Your task to perform on an android device: turn pop-ups on in chrome Image 0: 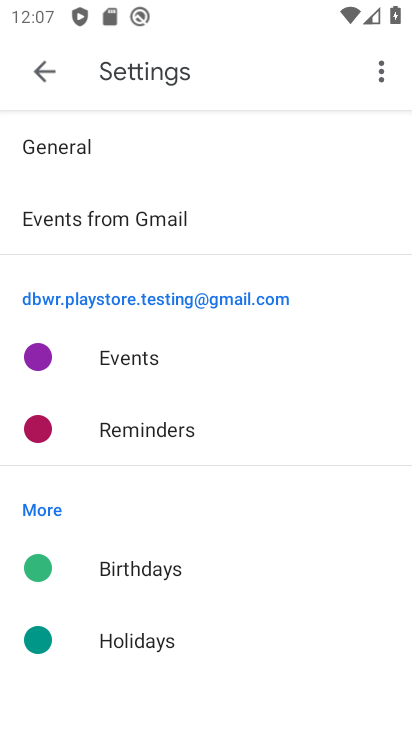
Step 0: press home button
Your task to perform on an android device: turn pop-ups on in chrome Image 1: 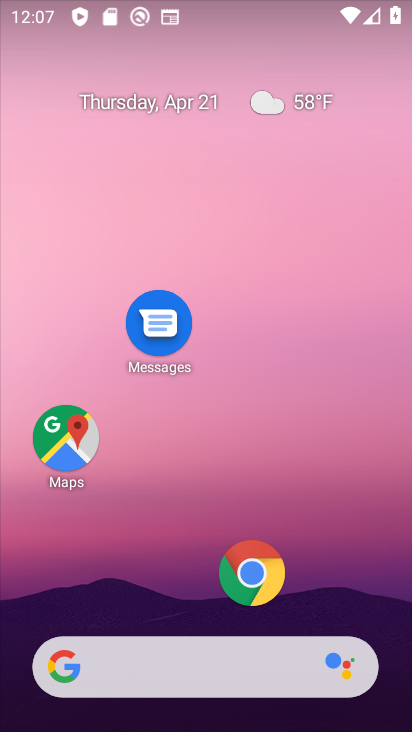
Step 1: click (252, 572)
Your task to perform on an android device: turn pop-ups on in chrome Image 2: 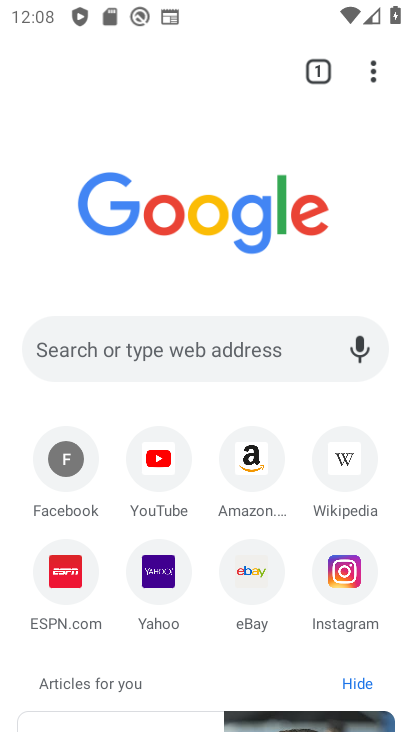
Step 2: click (366, 76)
Your task to perform on an android device: turn pop-ups on in chrome Image 3: 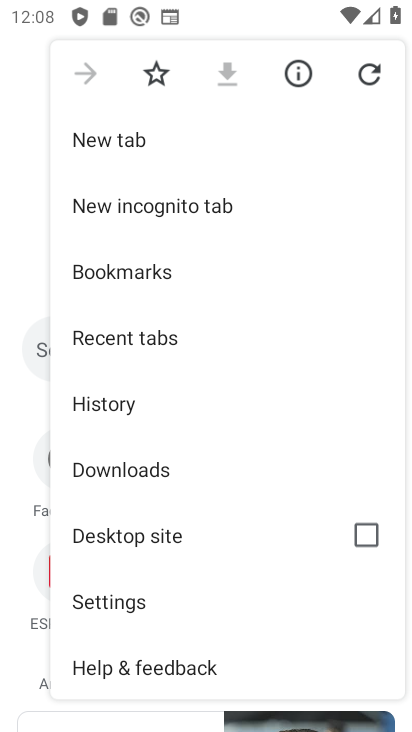
Step 3: click (153, 607)
Your task to perform on an android device: turn pop-ups on in chrome Image 4: 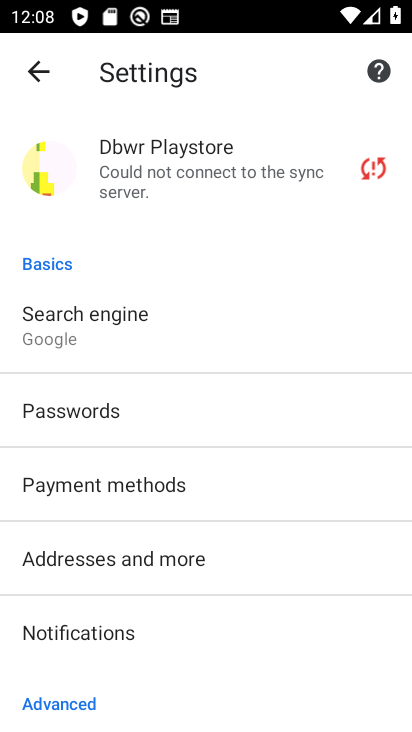
Step 4: drag from (218, 569) to (197, 141)
Your task to perform on an android device: turn pop-ups on in chrome Image 5: 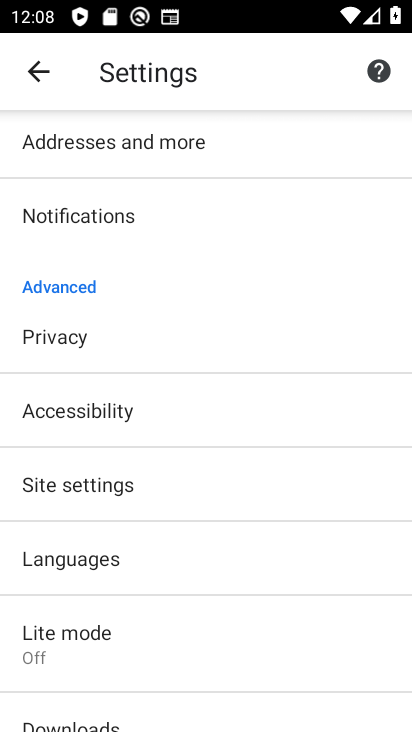
Step 5: drag from (127, 597) to (142, 376)
Your task to perform on an android device: turn pop-ups on in chrome Image 6: 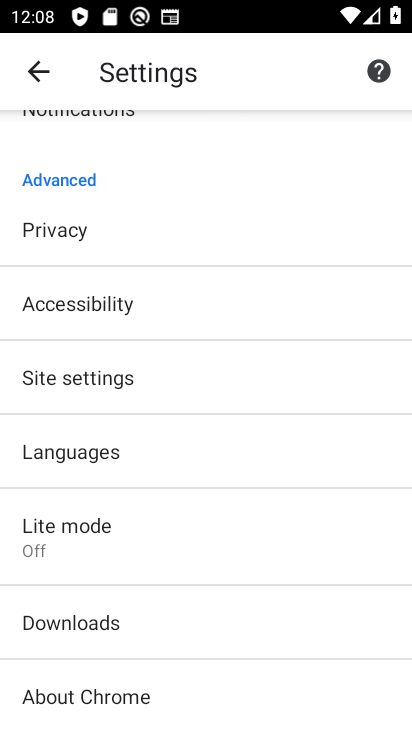
Step 6: click (95, 361)
Your task to perform on an android device: turn pop-ups on in chrome Image 7: 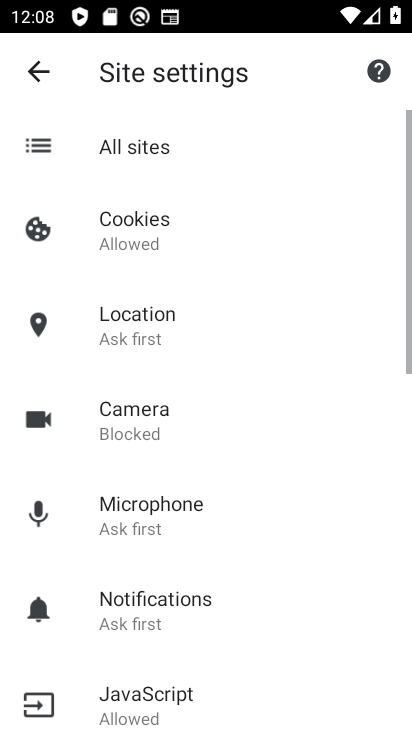
Step 7: drag from (282, 664) to (272, 185)
Your task to perform on an android device: turn pop-ups on in chrome Image 8: 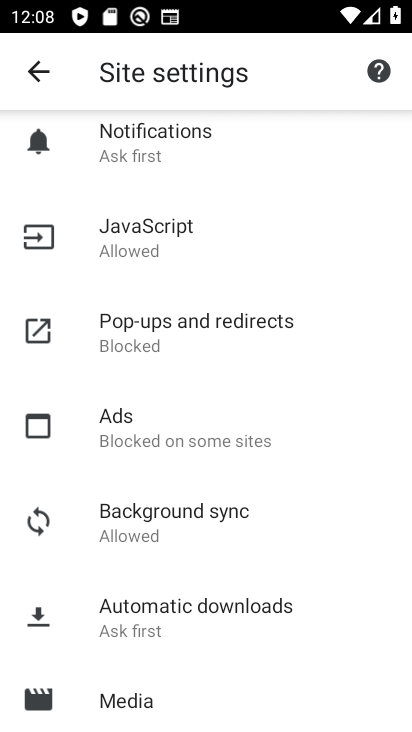
Step 8: click (188, 341)
Your task to perform on an android device: turn pop-ups on in chrome Image 9: 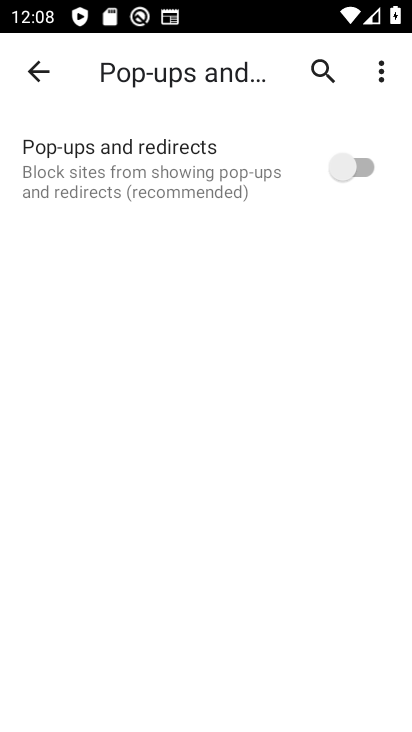
Step 9: click (349, 168)
Your task to perform on an android device: turn pop-ups on in chrome Image 10: 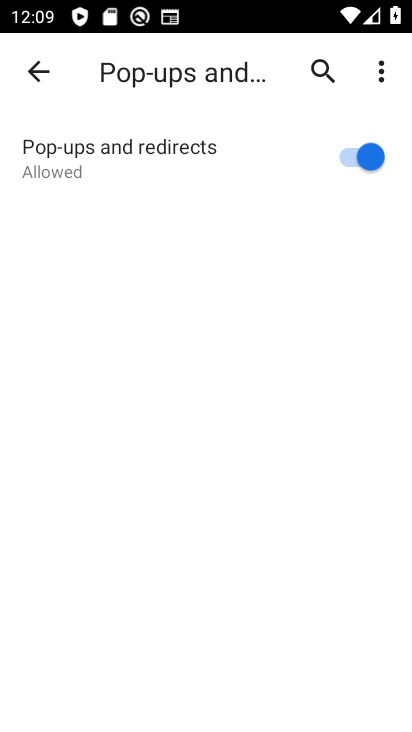
Step 10: task complete